Your task to perform on an android device: move a message to another label in the gmail app Image 0: 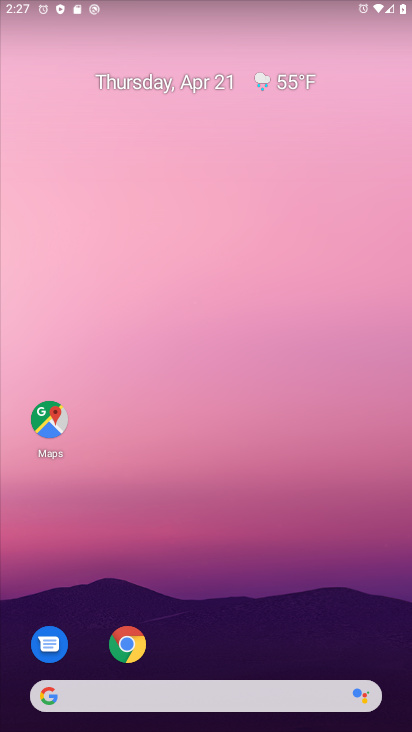
Step 0: drag from (284, 575) to (248, 42)
Your task to perform on an android device: move a message to another label in the gmail app Image 1: 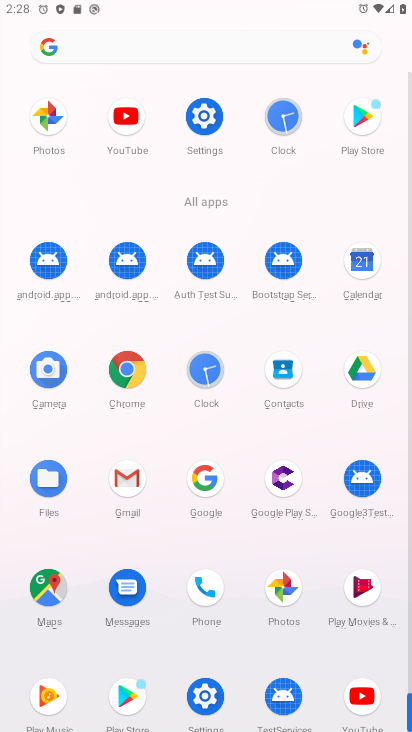
Step 1: click (120, 487)
Your task to perform on an android device: move a message to another label in the gmail app Image 2: 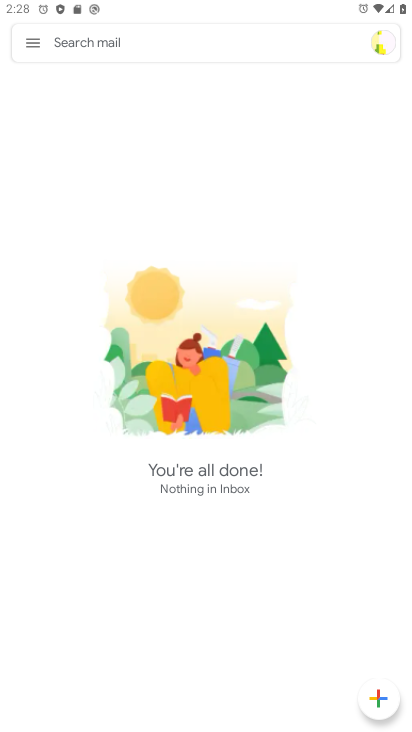
Step 2: click (31, 46)
Your task to perform on an android device: move a message to another label in the gmail app Image 3: 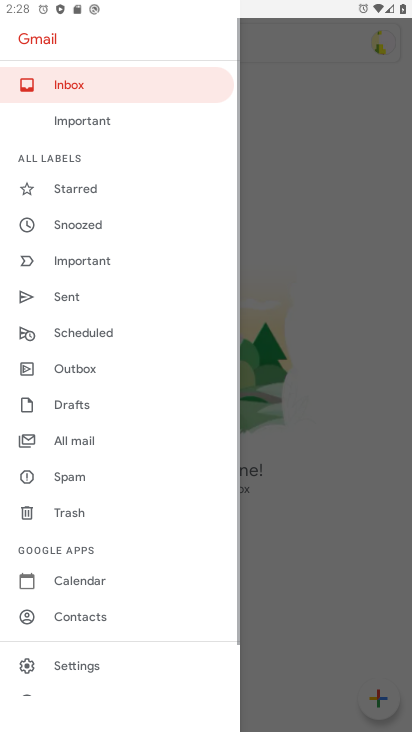
Step 3: drag from (31, 46) to (158, 339)
Your task to perform on an android device: move a message to another label in the gmail app Image 4: 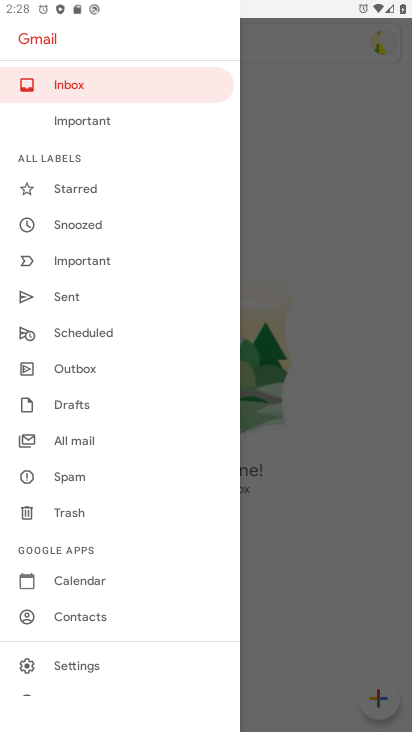
Step 4: click (81, 445)
Your task to perform on an android device: move a message to another label in the gmail app Image 5: 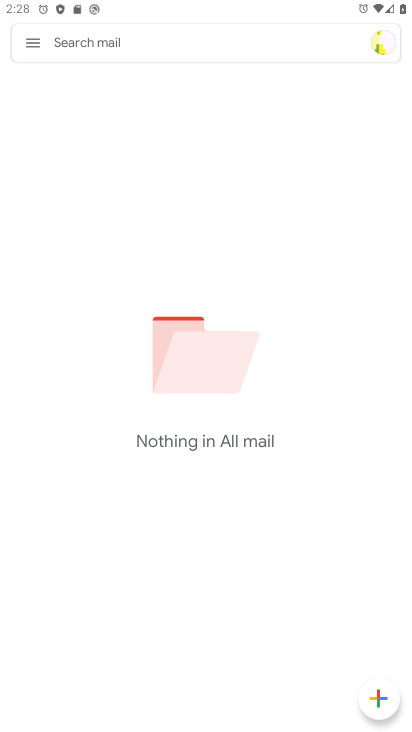
Step 5: task complete